Your task to perform on an android device: turn on bluetooth scan Image 0: 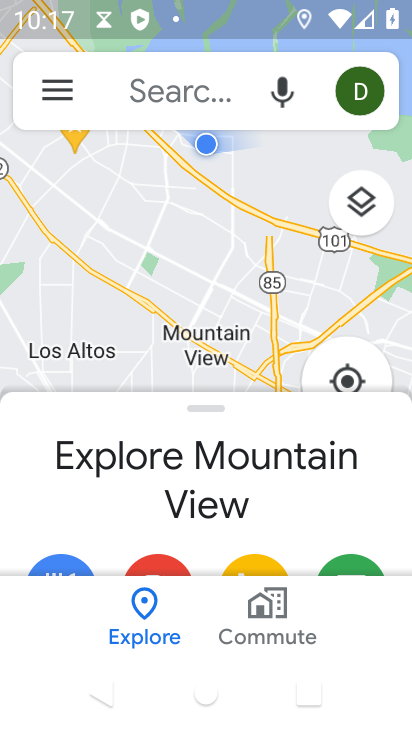
Step 0: press home button
Your task to perform on an android device: turn on bluetooth scan Image 1: 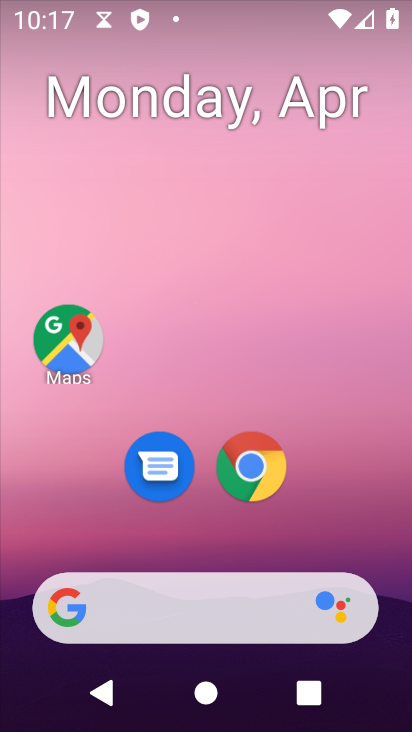
Step 1: drag from (360, 517) to (295, 11)
Your task to perform on an android device: turn on bluetooth scan Image 2: 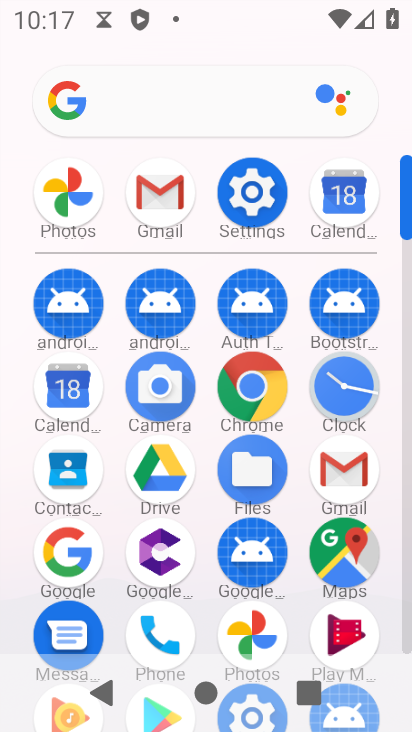
Step 2: click (271, 212)
Your task to perform on an android device: turn on bluetooth scan Image 3: 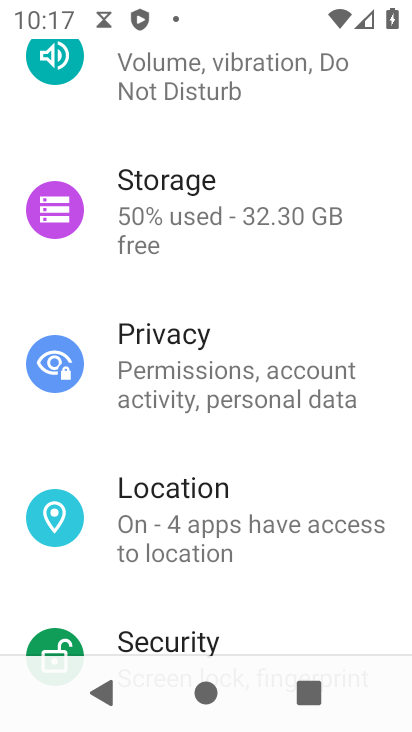
Step 3: drag from (291, 150) to (340, 359)
Your task to perform on an android device: turn on bluetooth scan Image 4: 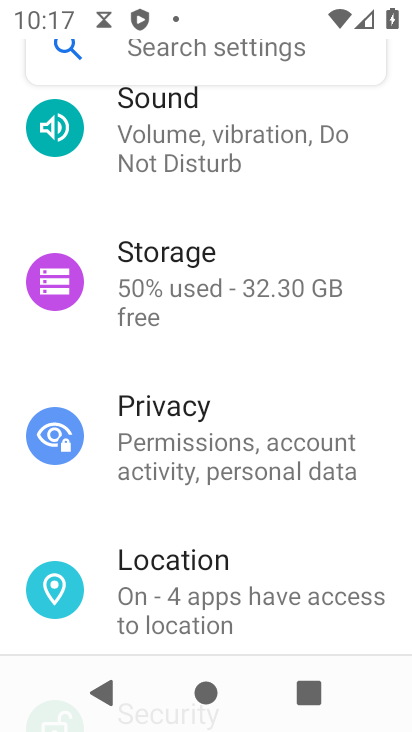
Step 4: drag from (212, 200) to (238, 437)
Your task to perform on an android device: turn on bluetooth scan Image 5: 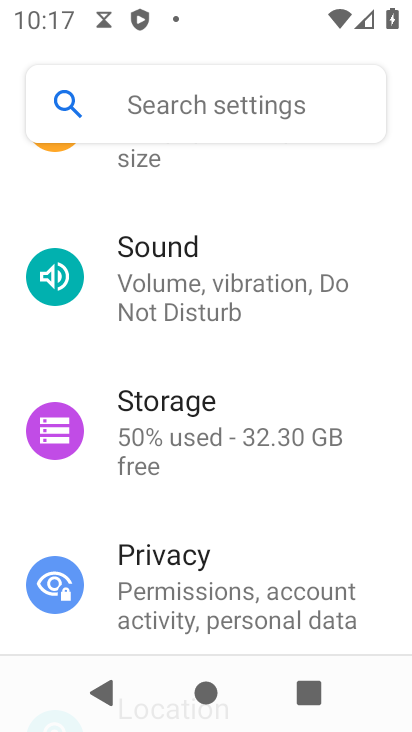
Step 5: drag from (227, 496) to (212, 250)
Your task to perform on an android device: turn on bluetooth scan Image 6: 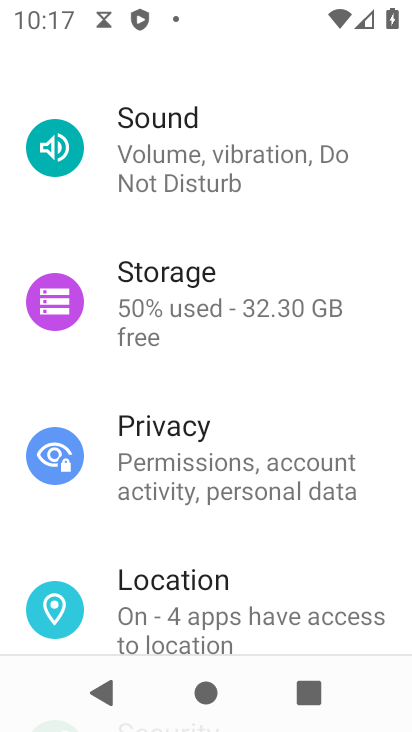
Step 6: click (195, 586)
Your task to perform on an android device: turn on bluetooth scan Image 7: 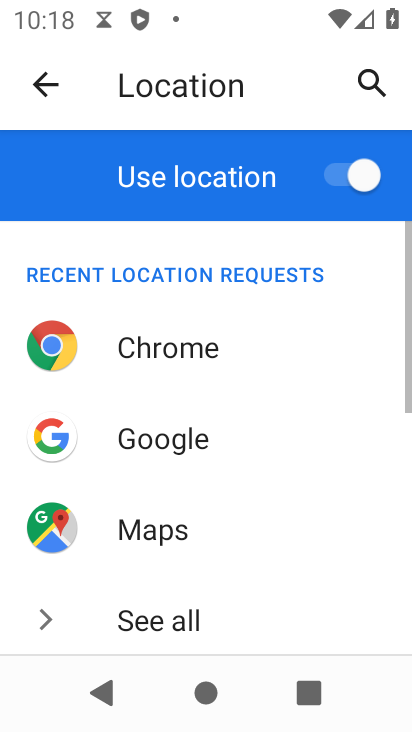
Step 7: drag from (265, 475) to (271, 242)
Your task to perform on an android device: turn on bluetooth scan Image 8: 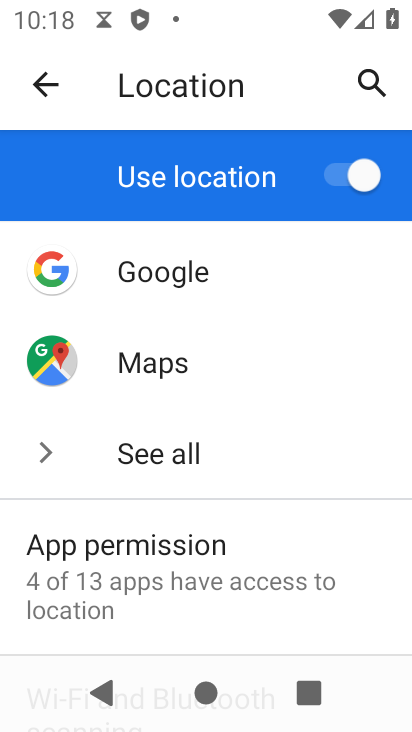
Step 8: drag from (294, 603) to (278, 319)
Your task to perform on an android device: turn on bluetooth scan Image 9: 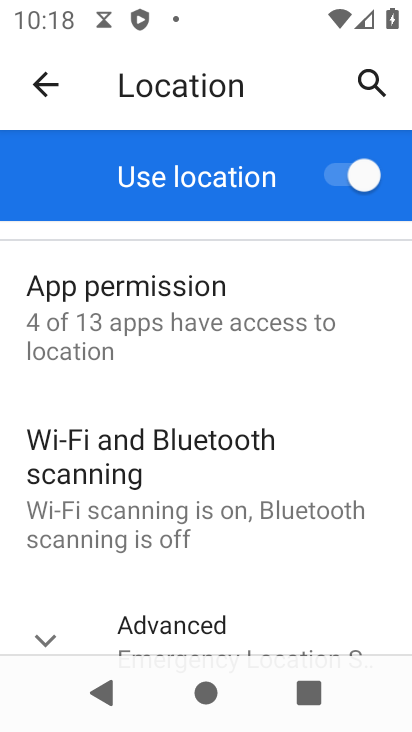
Step 9: click (114, 511)
Your task to perform on an android device: turn on bluetooth scan Image 10: 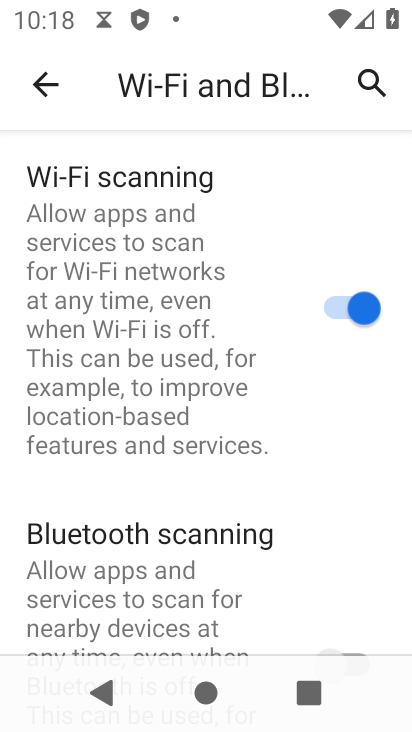
Step 10: drag from (258, 532) to (247, 364)
Your task to perform on an android device: turn on bluetooth scan Image 11: 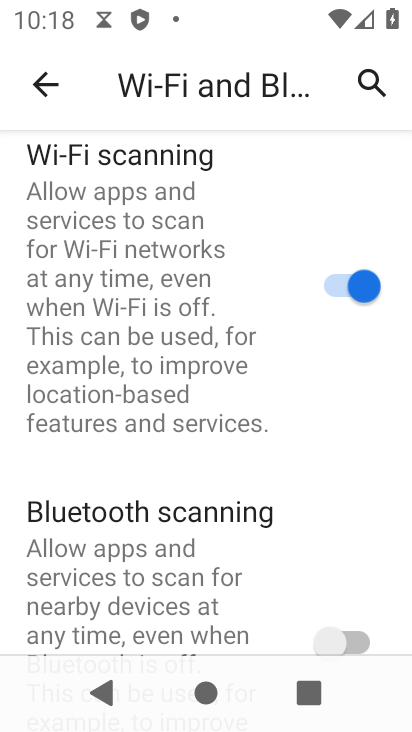
Step 11: click (351, 643)
Your task to perform on an android device: turn on bluetooth scan Image 12: 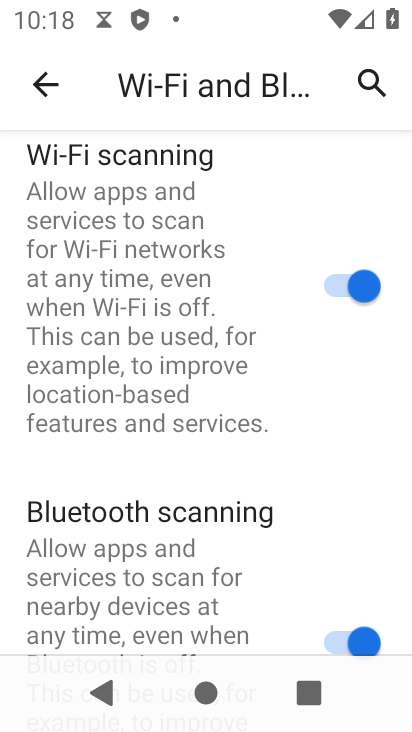
Step 12: task complete